Your task to perform on an android device: toggle priority inbox in the gmail app Image 0: 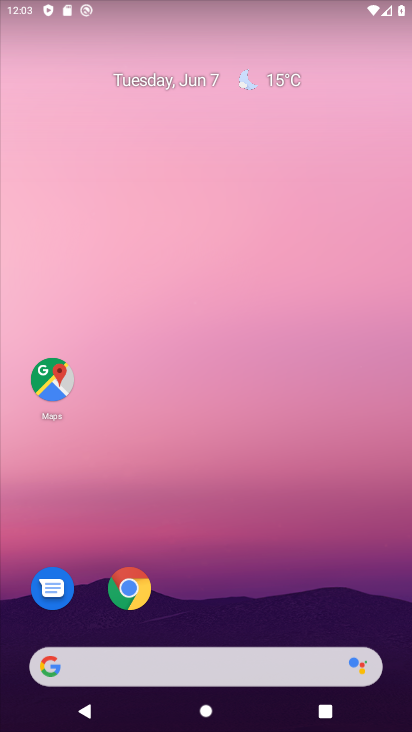
Step 0: drag from (227, 611) to (224, 297)
Your task to perform on an android device: toggle priority inbox in the gmail app Image 1: 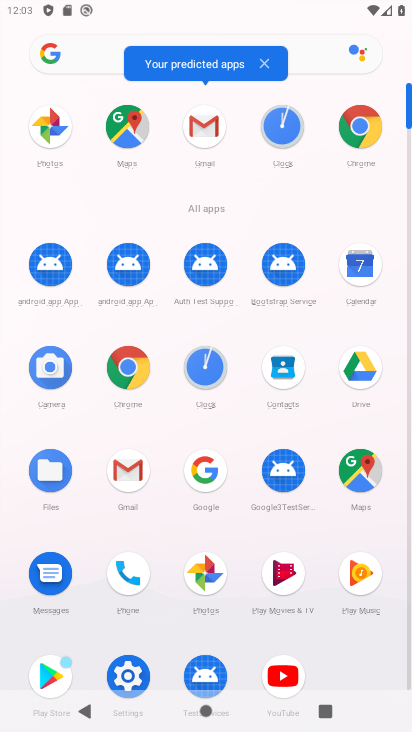
Step 1: click (130, 461)
Your task to perform on an android device: toggle priority inbox in the gmail app Image 2: 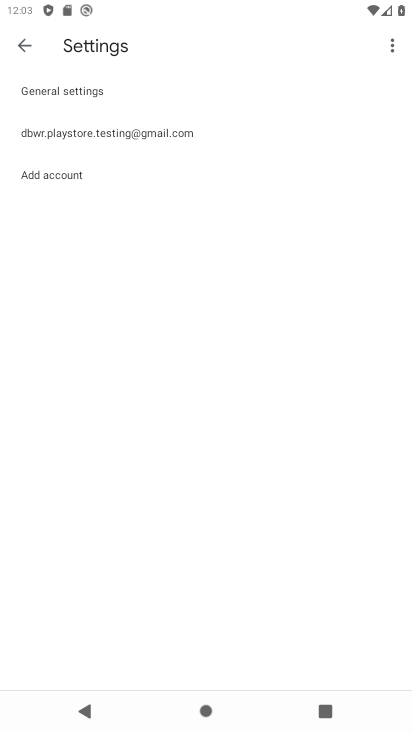
Step 2: click (108, 132)
Your task to perform on an android device: toggle priority inbox in the gmail app Image 3: 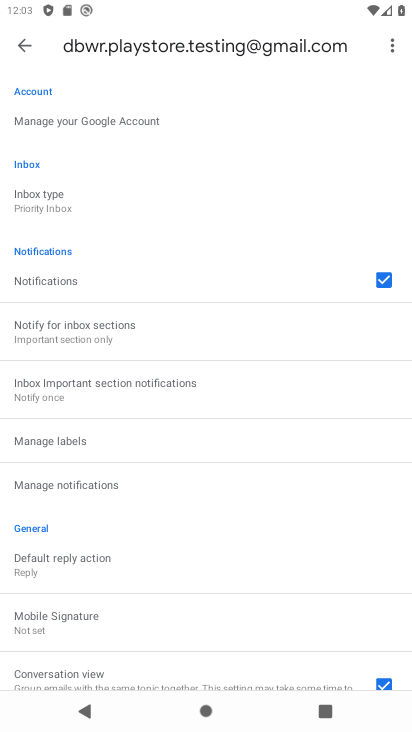
Step 3: click (64, 190)
Your task to perform on an android device: toggle priority inbox in the gmail app Image 4: 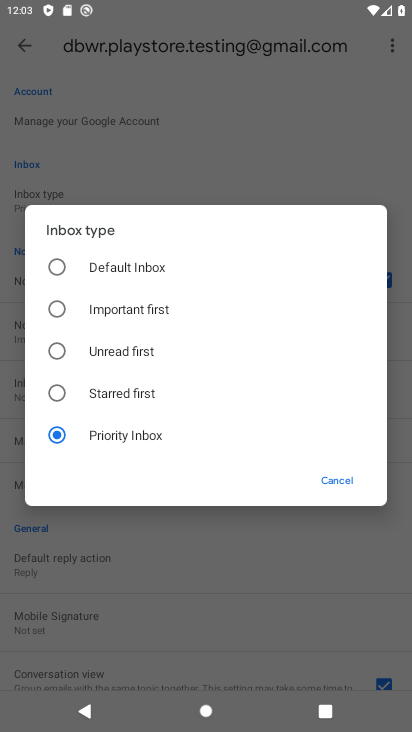
Step 4: click (106, 273)
Your task to perform on an android device: toggle priority inbox in the gmail app Image 5: 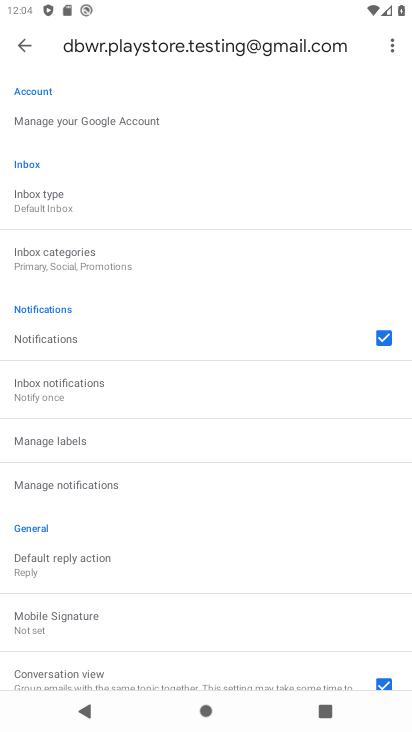
Step 5: task complete